Your task to perform on an android device: Go to notification settings Image 0: 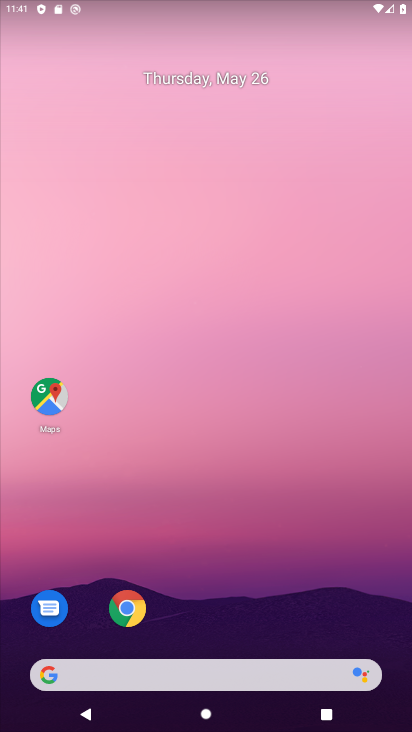
Step 0: drag from (258, 570) to (149, 2)
Your task to perform on an android device: Go to notification settings Image 1: 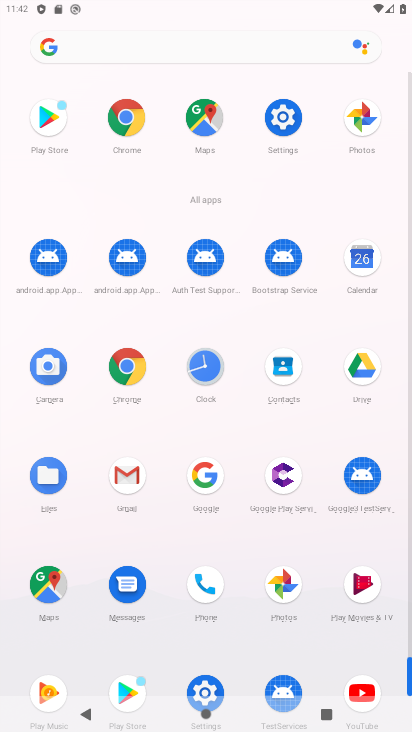
Step 1: drag from (11, 579) to (18, 263)
Your task to perform on an android device: Go to notification settings Image 2: 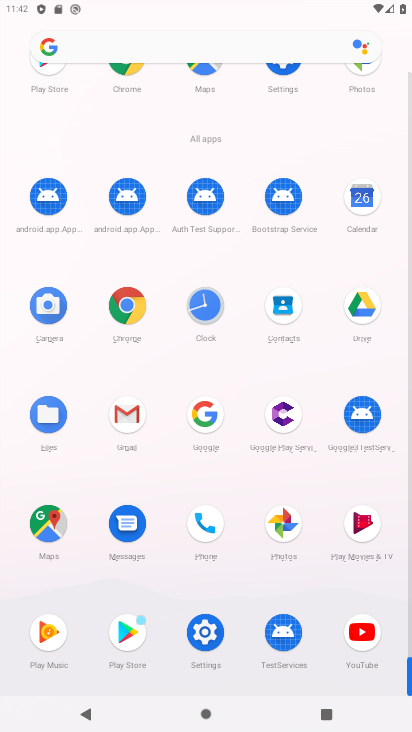
Step 2: click (211, 631)
Your task to perform on an android device: Go to notification settings Image 3: 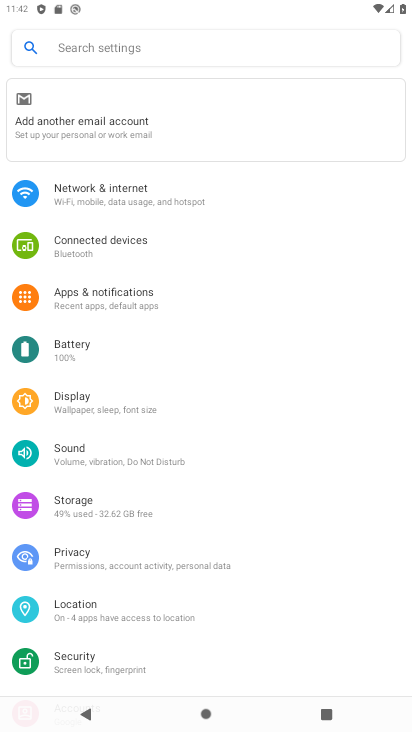
Step 3: click (157, 284)
Your task to perform on an android device: Go to notification settings Image 4: 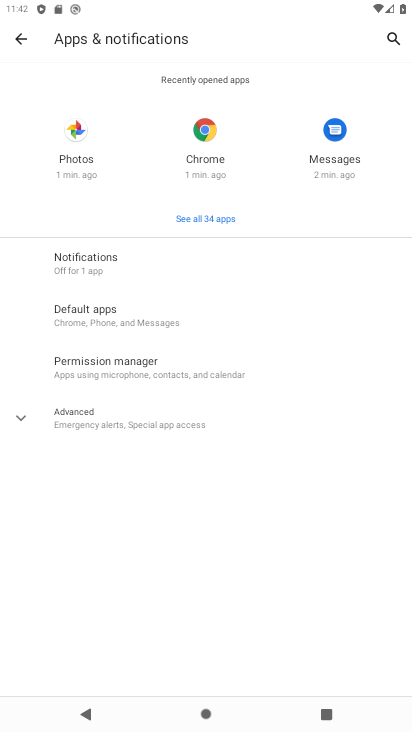
Step 4: click (39, 413)
Your task to perform on an android device: Go to notification settings Image 5: 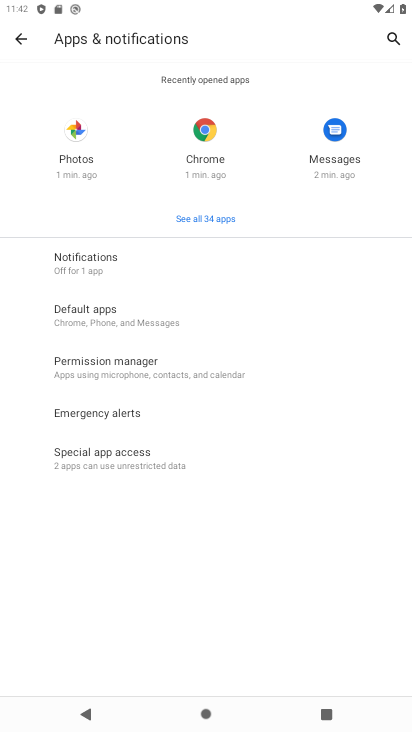
Step 5: click (141, 260)
Your task to perform on an android device: Go to notification settings Image 6: 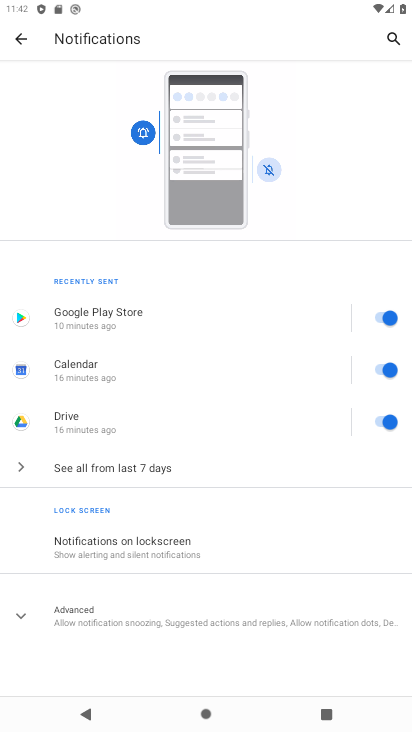
Step 6: drag from (245, 562) to (244, 223)
Your task to perform on an android device: Go to notification settings Image 7: 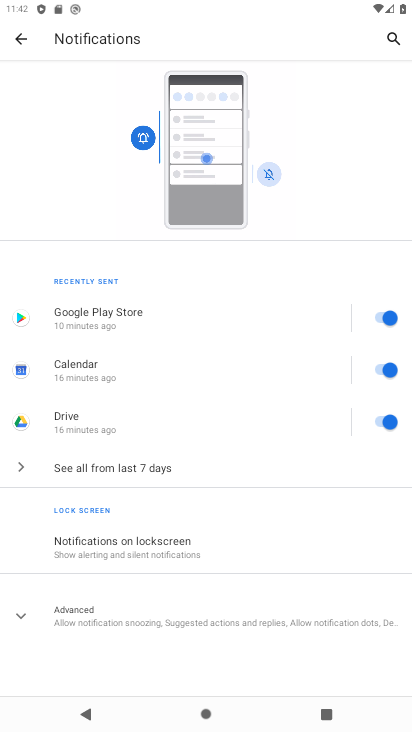
Step 7: click (24, 611)
Your task to perform on an android device: Go to notification settings Image 8: 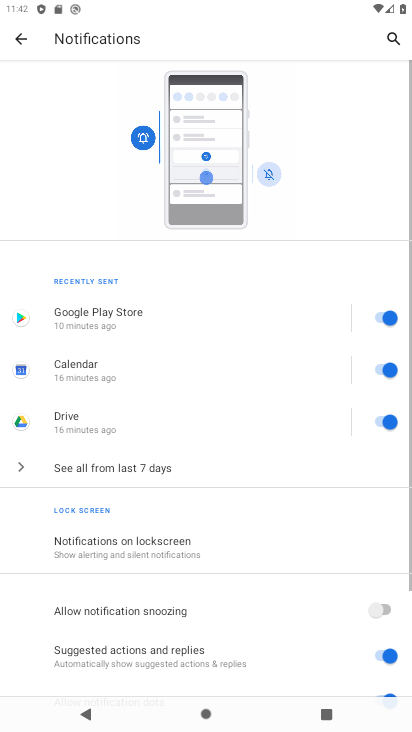
Step 8: task complete